Your task to perform on an android device: Open Chrome and go to the settings page Image 0: 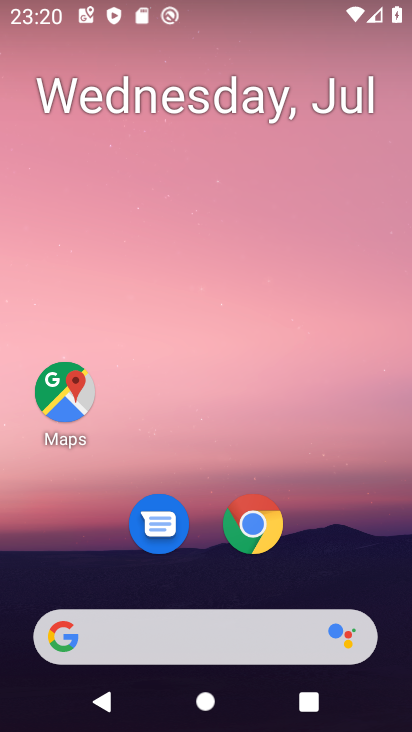
Step 0: press home button
Your task to perform on an android device: Open Chrome and go to the settings page Image 1: 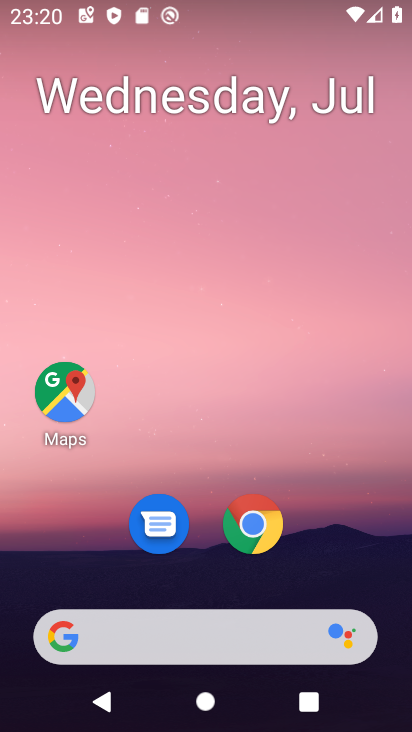
Step 1: click (260, 529)
Your task to perform on an android device: Open Chrome and go to the settings page Image 2: 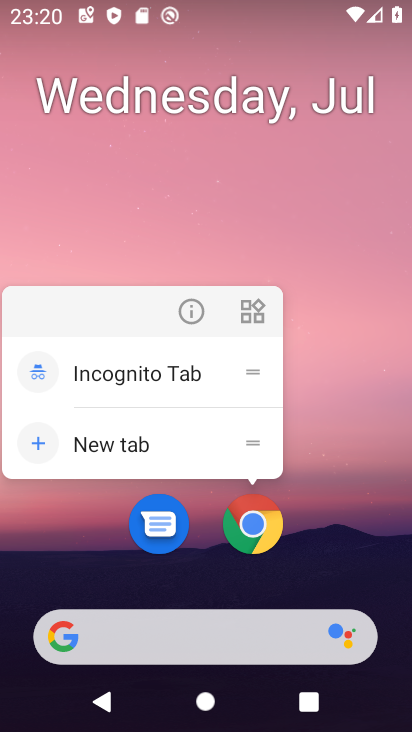
Step 2: click (259, 526)
Your task to perform on an android device: Open Chrome and go to the settings page Image 3: 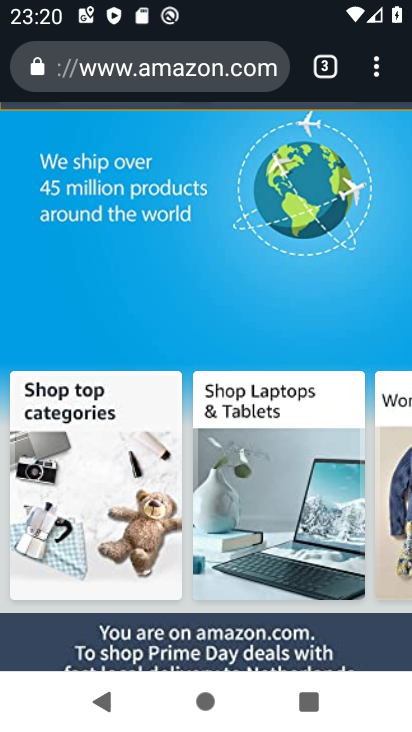
Step 3: task complete